Your task to perform on an android device: change notifications settings Image 0: 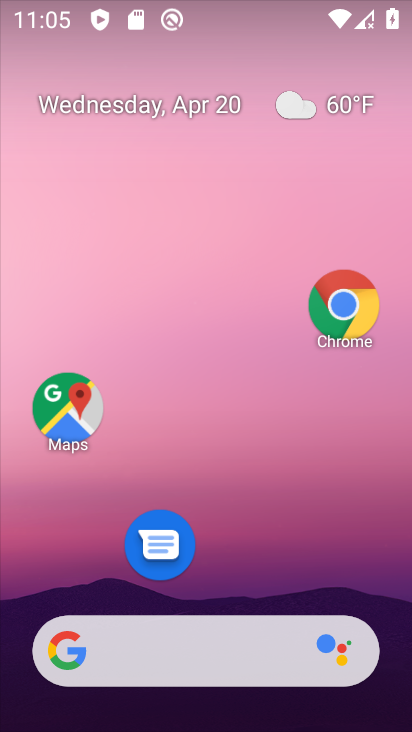
Step 0: drag from (246, 600) to (270, 262)
Your task to perform on an android device: change notifications settings Image 1: 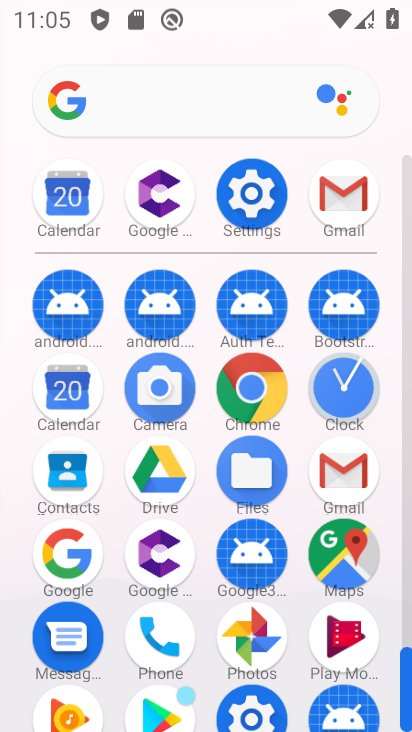
Step 1: click (273, 181)
Your task to perform on an android device: change notifications settings Image 2: 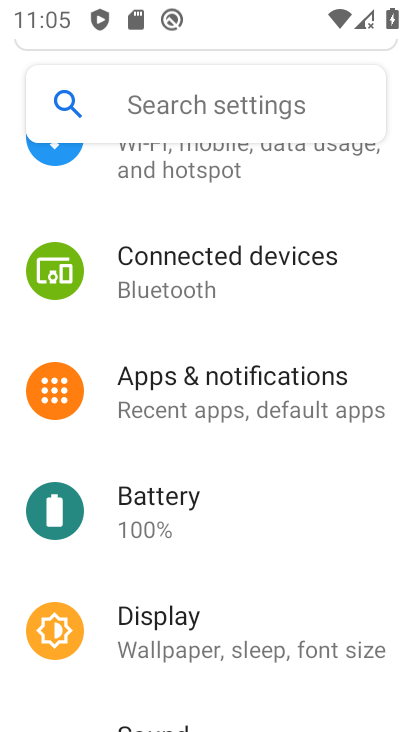
Step 2: drag from (216, 360) to (210, 730)
Your task to perform on an android device: change notifications settings Image 3: 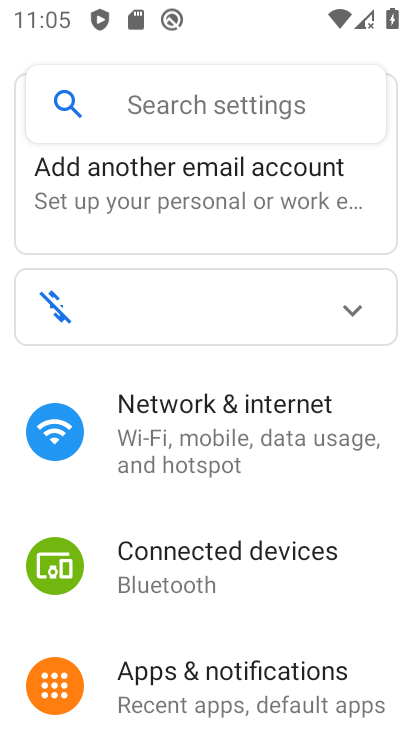
Step 3: drag from (227, 433) to (220, 515)
Your task to perform on an android device: change notifications settings Image 4: 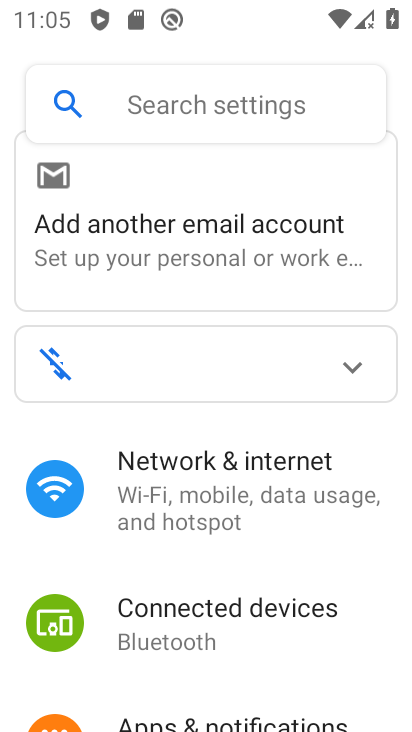
Step 4: click (262, 716)
Your task to perform on an android device: change notifications settings Image 5: 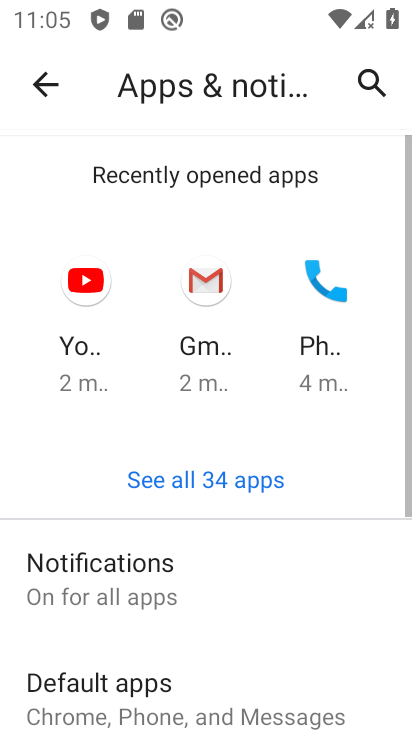
Step 5: click (226, 599)
Your task to perform on an android device: change notifications settings Image 6: 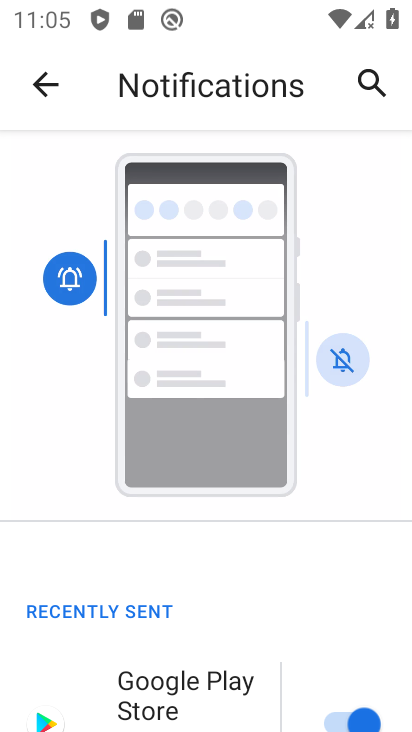
Step 6: click (328, 710)
Your task to perform on an android device: change notifications settings Image 7: 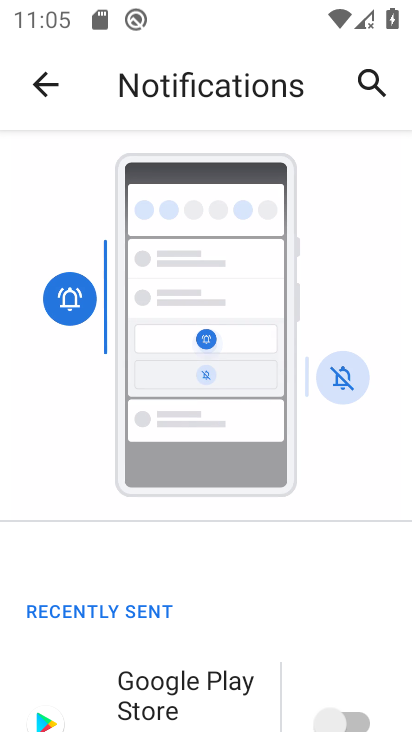
Step 7: task complete